Your task to perform on an android device: Open calendar and show me the first week of next month Image 0: 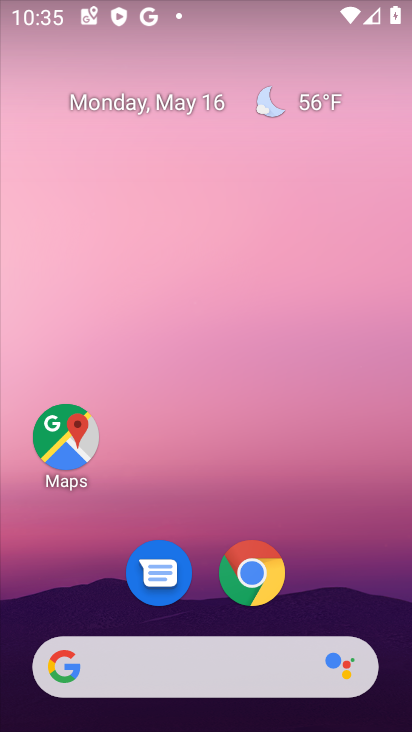
Step 0: drag from (359, 583) to (275, 246)
Your task to perform on an android device: Open calendar and show me the first week of next month Image 1: 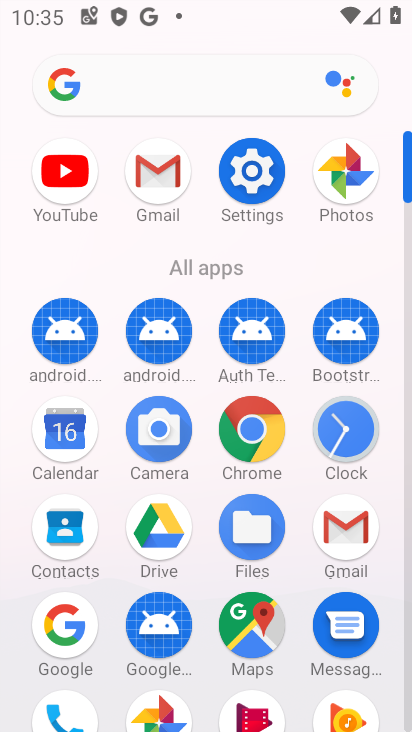
Step 1: click (52, 442)
Your task to perform on an android device: Open calendar and show me the first week of next month Image 2: 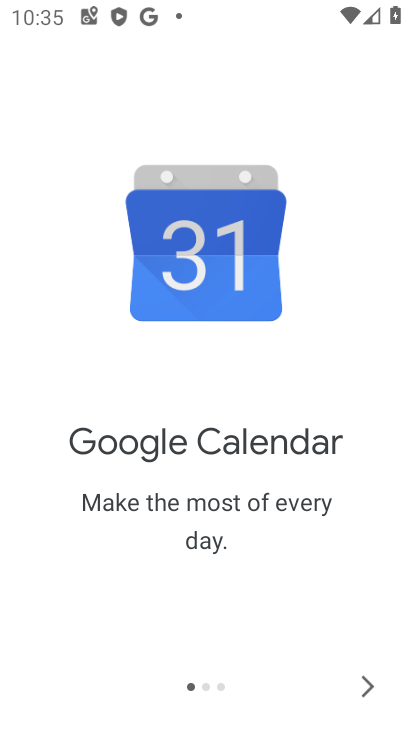
Step 2: click (375, 680)
Your task to perform on an android device: Open calendar and show me the first week of next month Image 3: 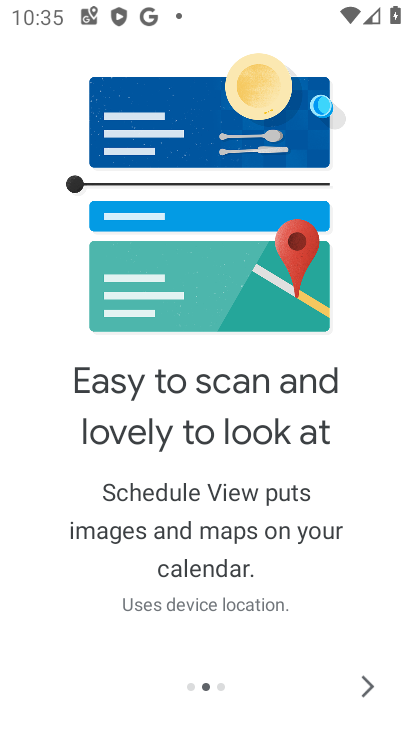
Step 3: click (375, 680)
Your task to perform on an android device: Open calendar and show me the first week of next month Image 4: 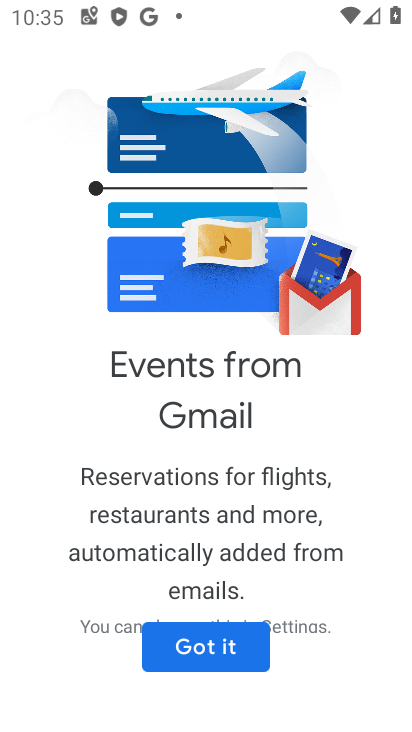
Step 4: click (221, 657)
Your task to perform on an android device: Open calendar and show me the first week of next month Image 5: 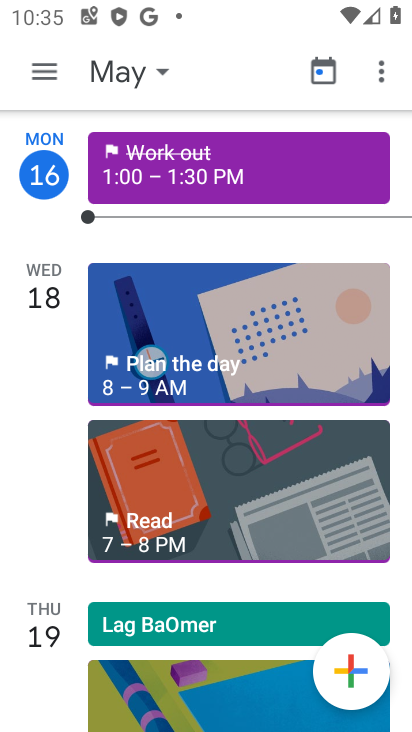
Step 5: click (51, 70)
Your task to perform on an android device: Open calendar and show me the first week of next month Image 6: 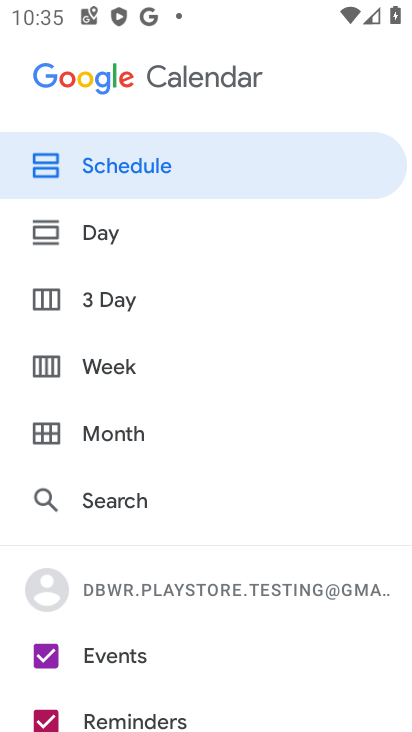
Step 6: click (153, 360)
Your task to perform on an android device: Open calendar and show me the first week of next month Image 7: 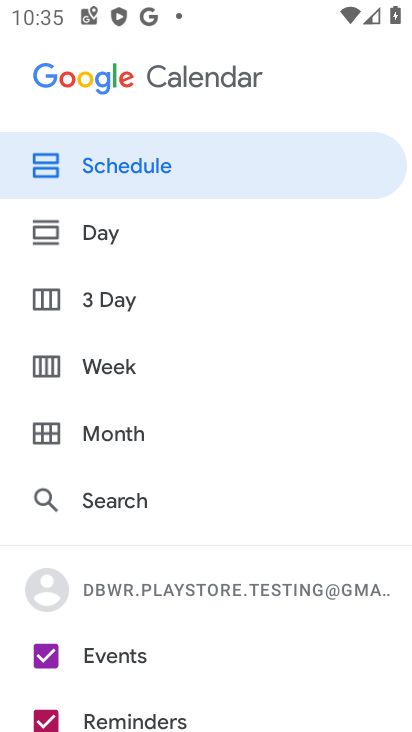
Step 7: click (110, 379)
Your task to perform on an android device: Open calendar and show me the first week of next month Image 8: 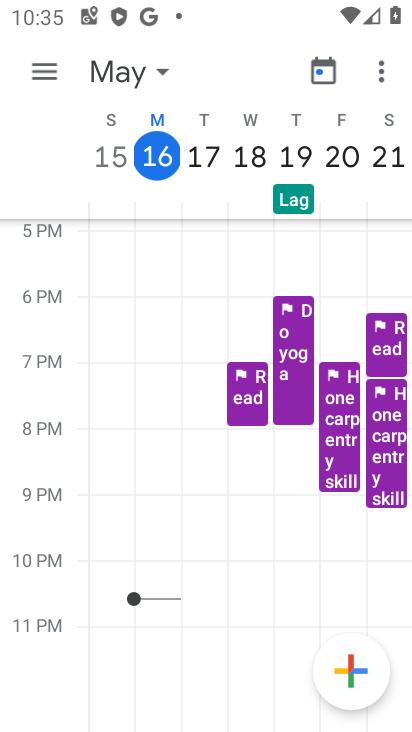
Step 8: click (147, 74)
Your task to perform on an android device: Open calendar and show me the first week of next month Image 9: 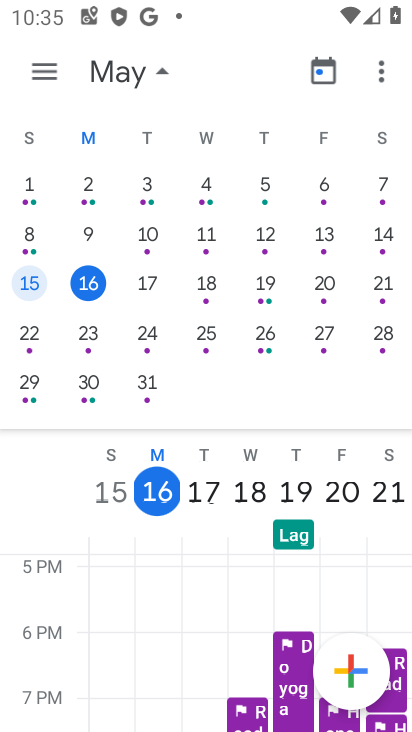
Step 9: drag from (345, 347) to (47, 305)
Your task to perform on an android device: Open calendar and show me the first week of next month Image 10: 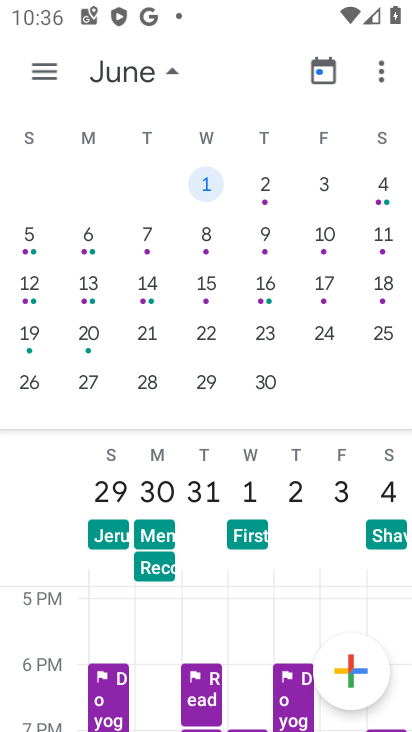
Step 10: click (221, 187)
Your task to perform on an android device: Open calendar and show me the first week of next month Image 11: 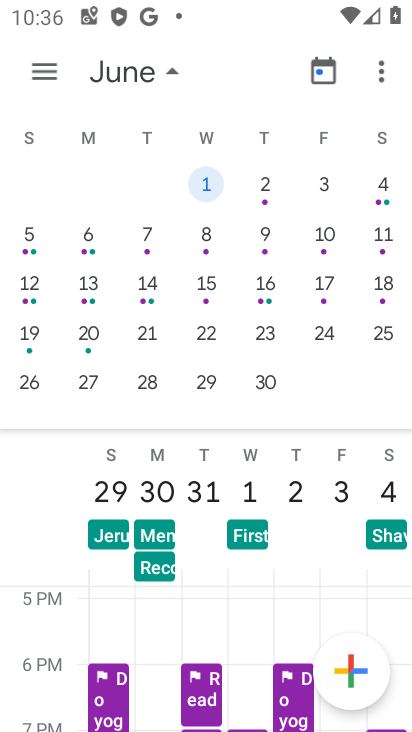
Step 11: click (212, 189)
Your task to perform on an android device: Open calendar and show me the first week of next month Image 12: 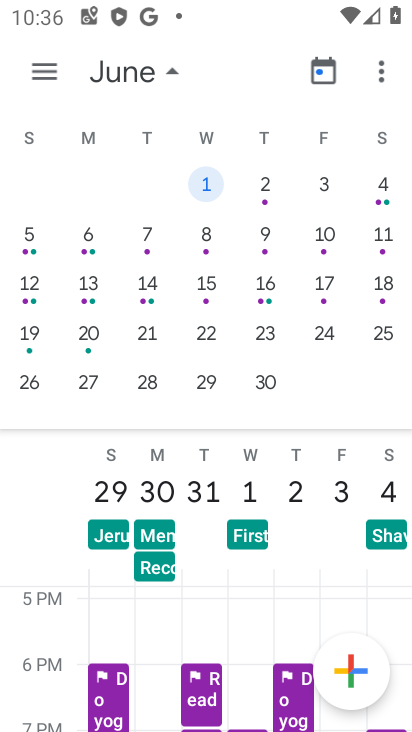
Step 12: click (91, 234)
Your task to perform on an android device: Open calendar and show me the first week of next month Image 13: 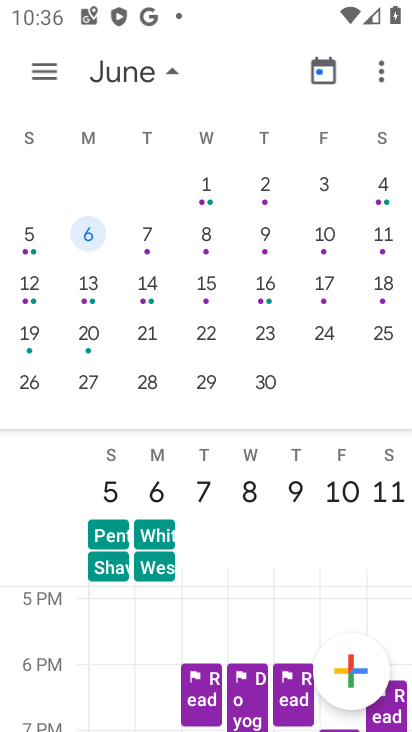
Step 13: task complete